Your task to perform on an android device: Open Google Image 0: 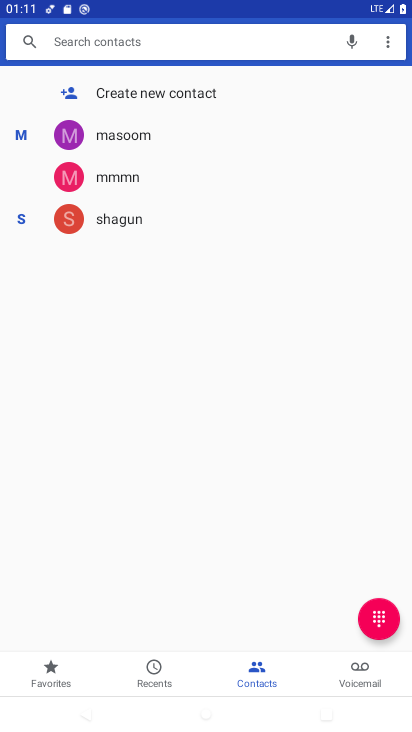
Step 0: press home button
Your task to perform on an android device: Open Google Image 1: 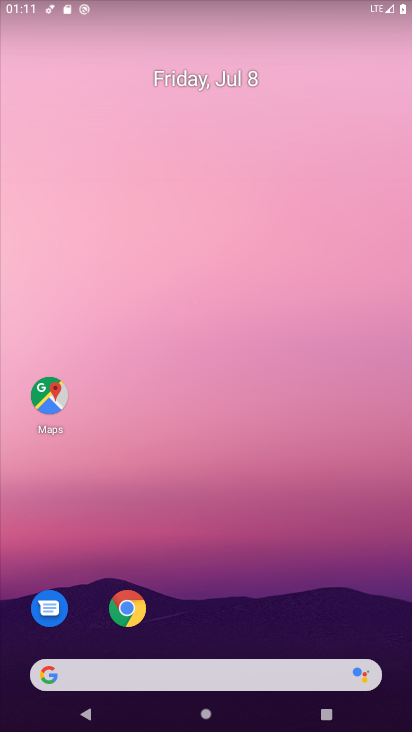
Step 1: drag from (226, 649) to (271, 35)
Your task to perform on an android device: Open Google Image 2: 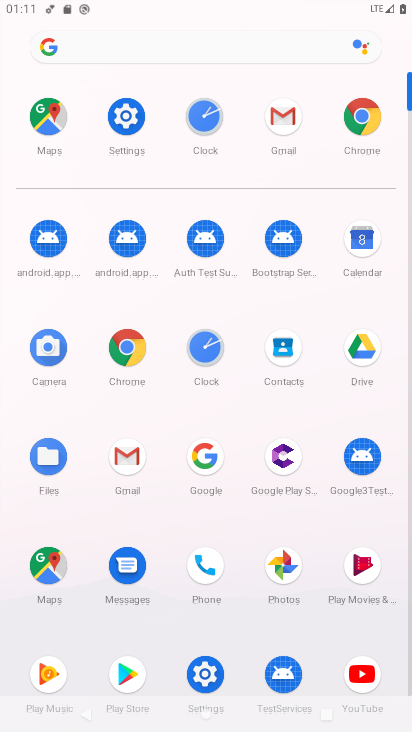
Step 2: click (206, 460)
Your task to perform on an android device: Open Google Image 3: 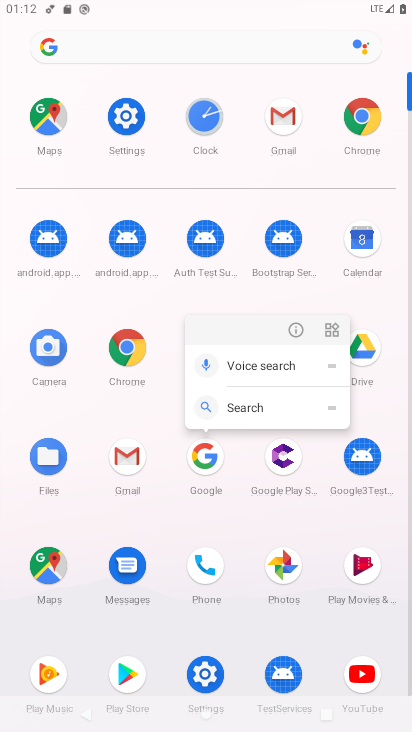
Step 3: click (160, 307)
Your task to perform on an android device: Open Google Image 4: 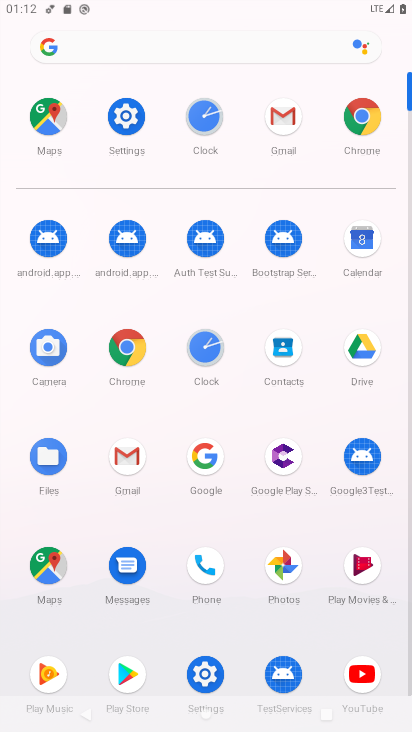
Step 4: click (198, 459)
Your task to perform on an android device: Open Google Image 5: 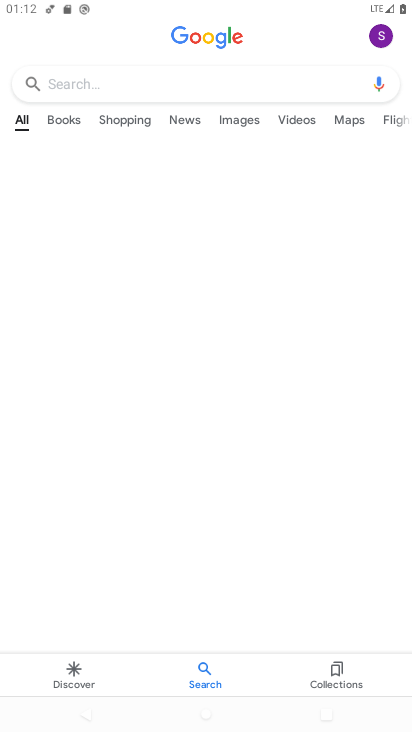
Step 5: task complete